Your task to perform on an android device: Go to wifi settings Image 0: 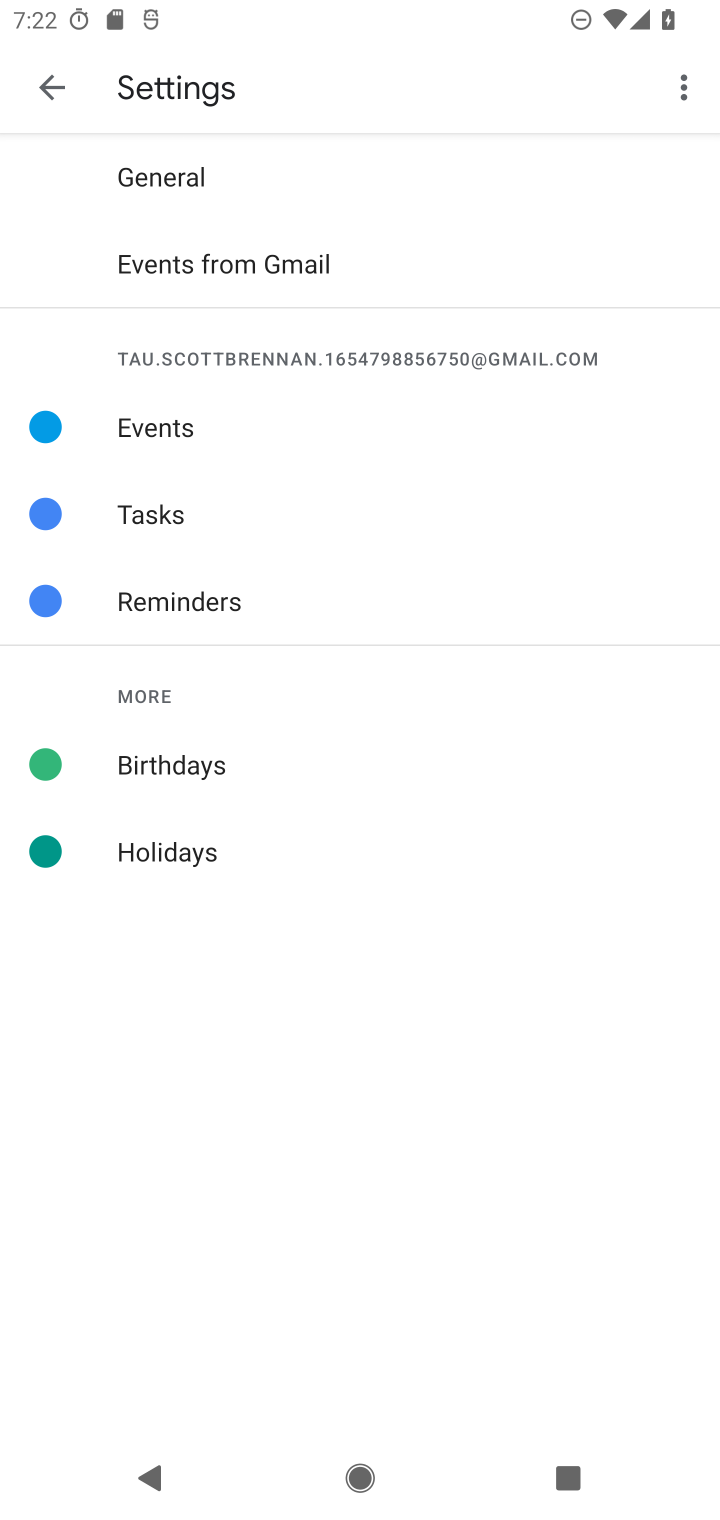
Step 0: press home button
Your task to perform on an android device: Go to wifi settings Image 1: 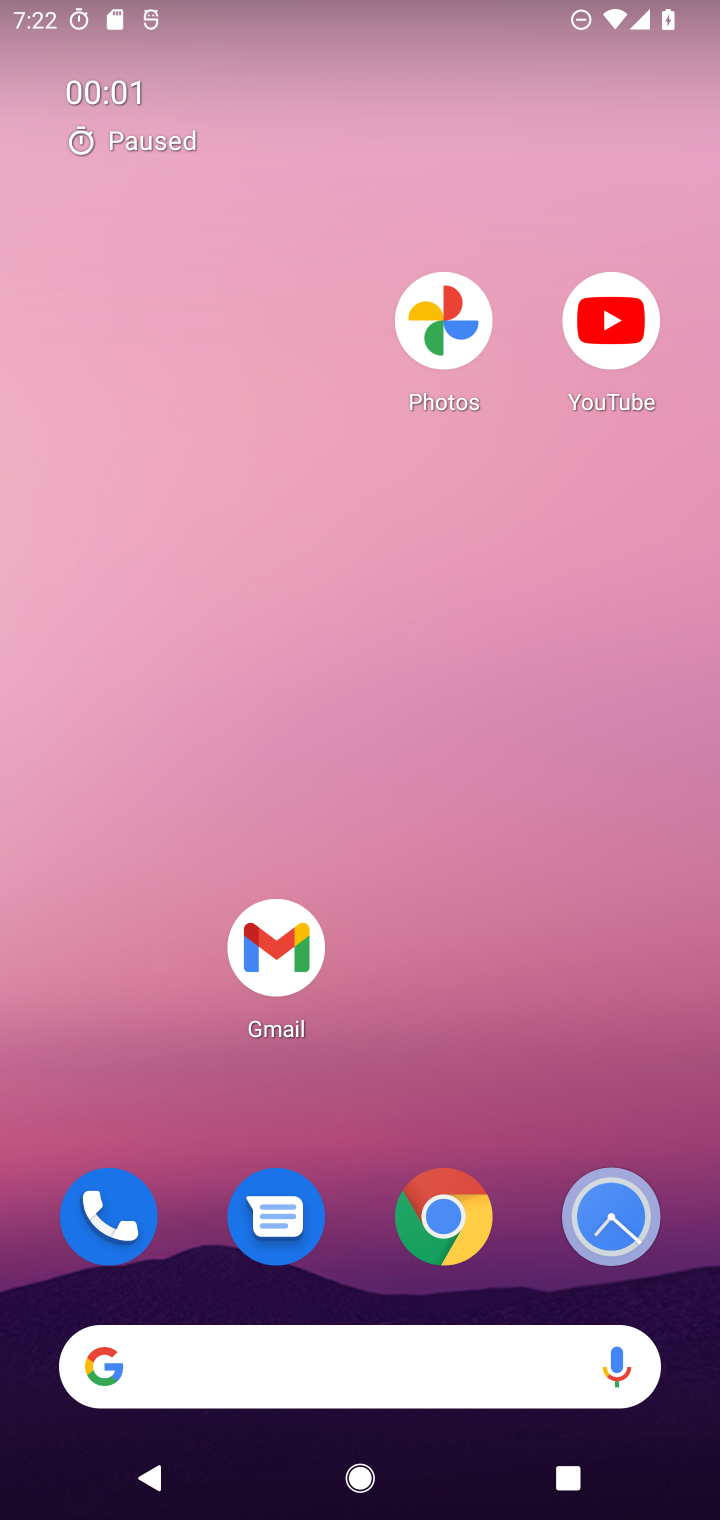
Step 1: drag from (463, 210) to (478, 57)
Your task to perform on an android device: Go to wifi settings Image 2: 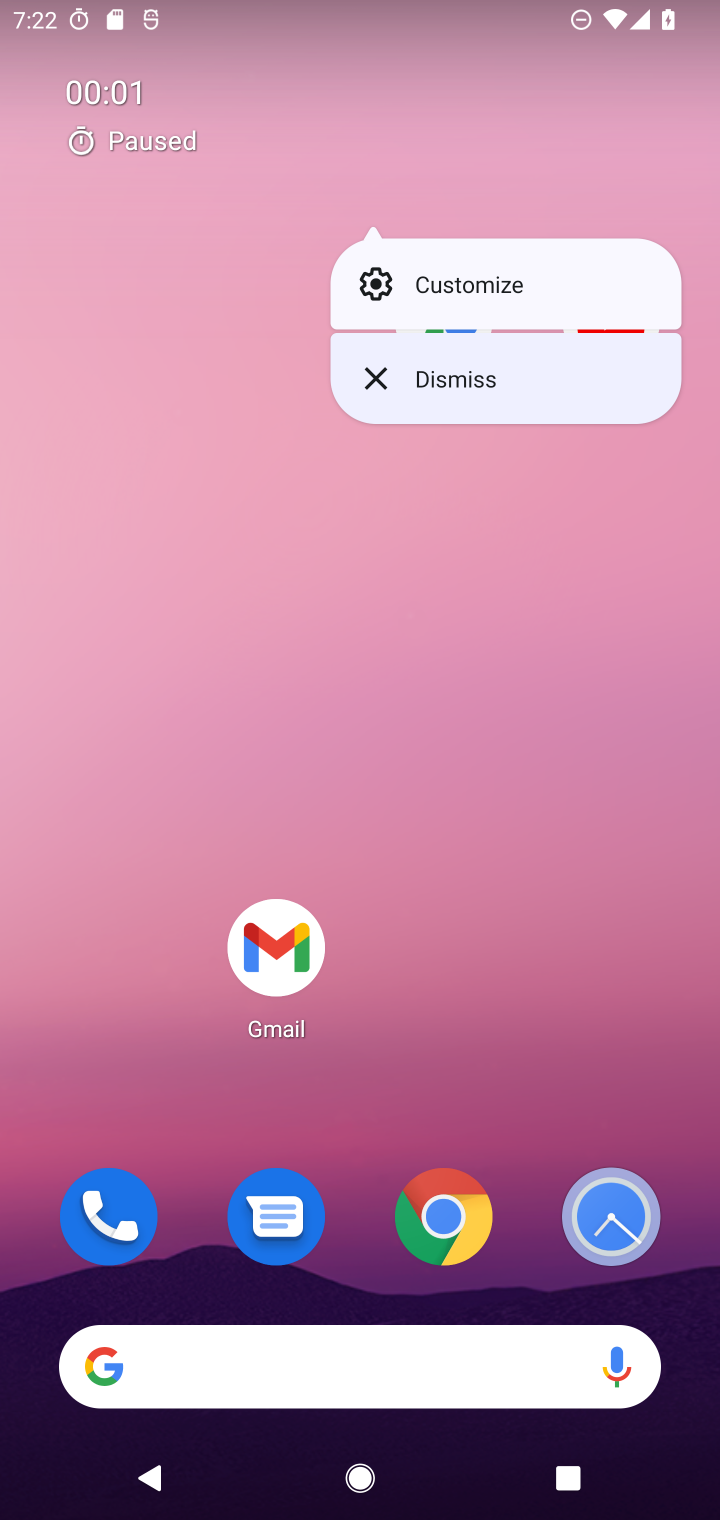
Step 2: click (488, 892)
Your task to perform on an android device: Go to wifi settings Image 3: 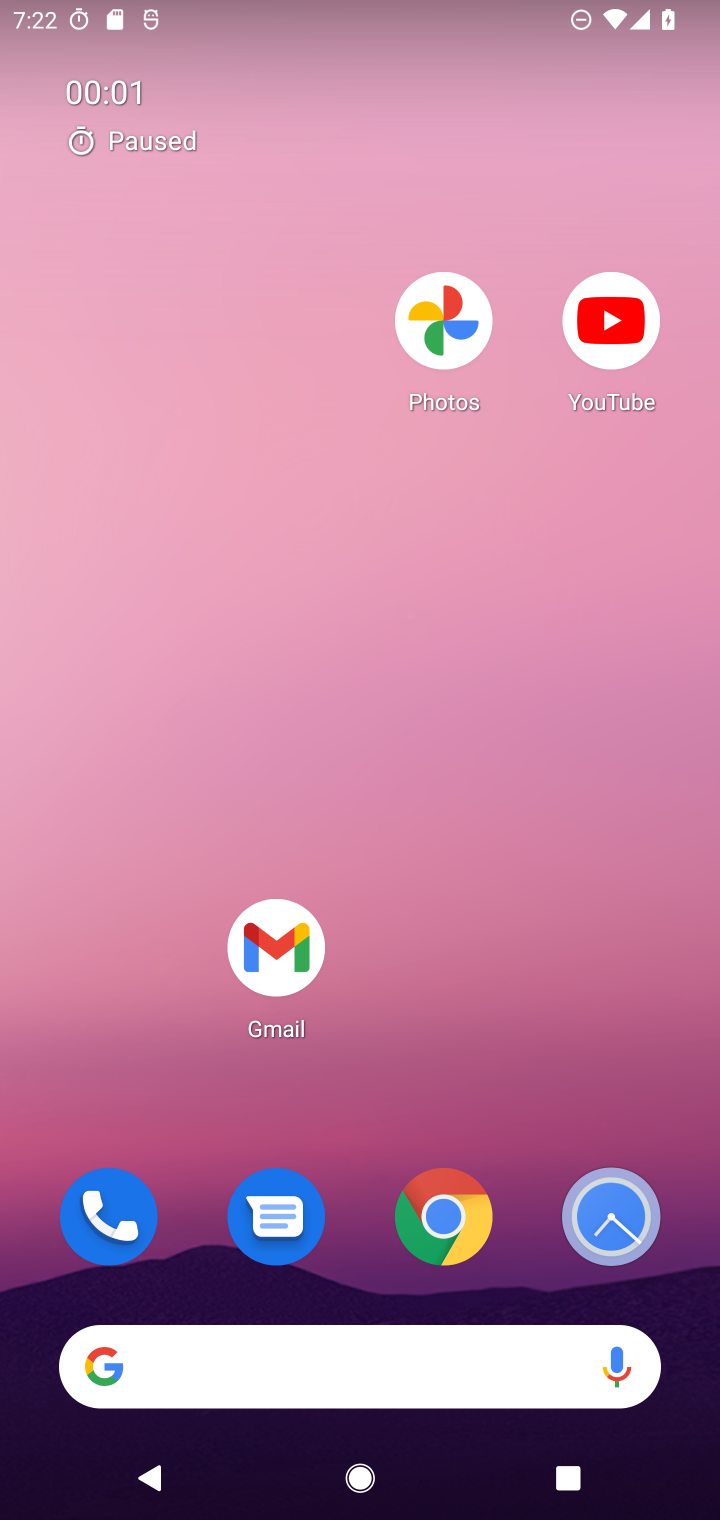
Step 3: drag from (375, 1254) to (474, 156)
Your task to perform on an android device: Go to wifi settings Image 4: 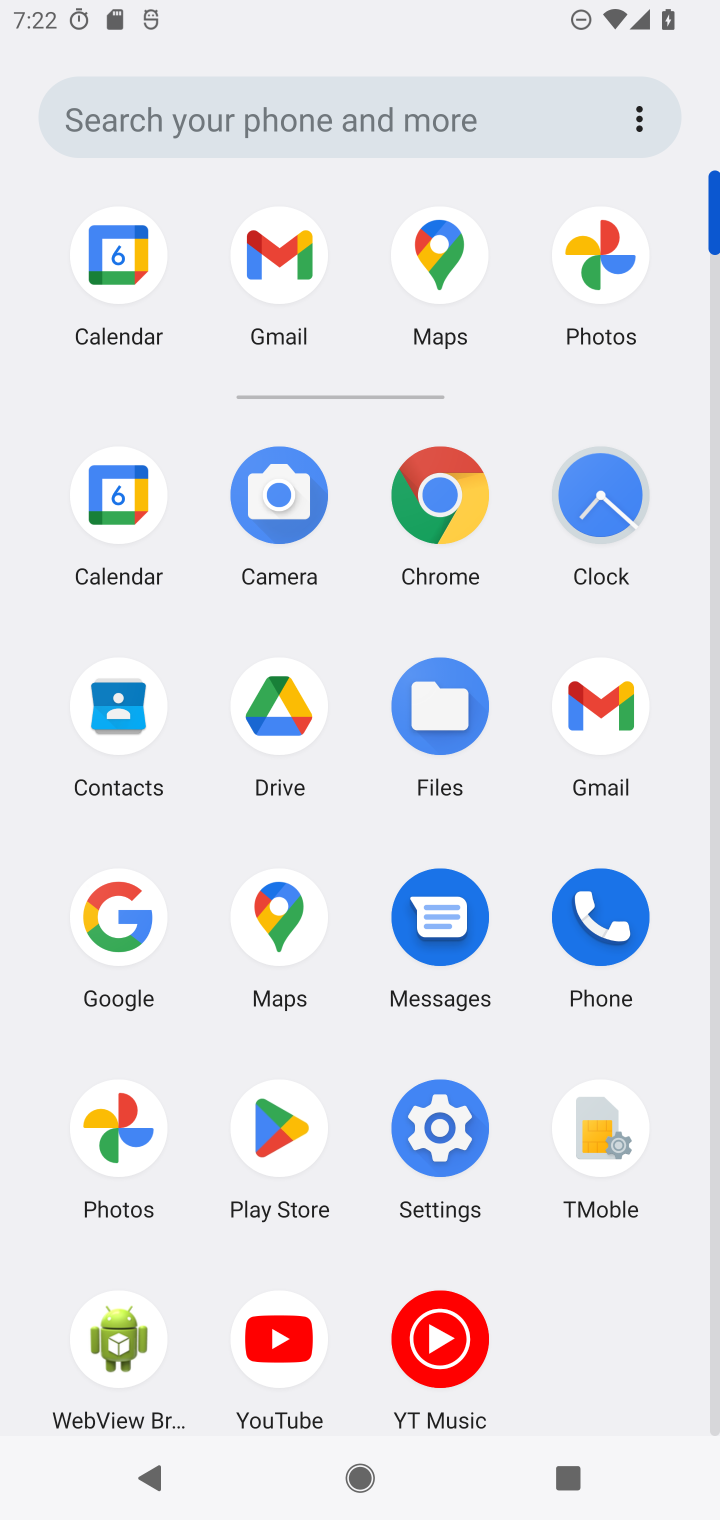
Step 4: click (434, 1123)
Your task to perform on an android device: Go to wifi settings Image 5: 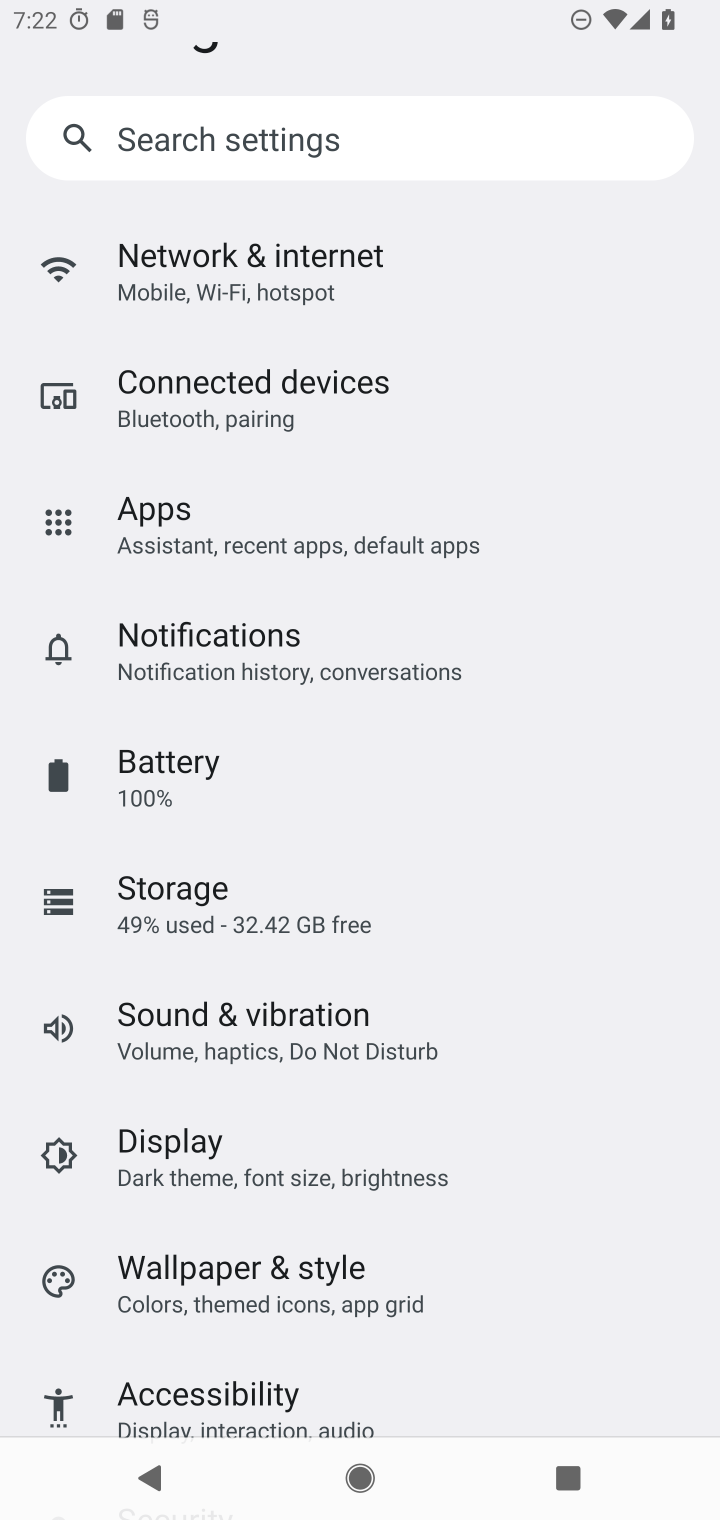
Step 5: click (279, 284)
Your task to perform on an android device: Go to wifi settings Image 6: 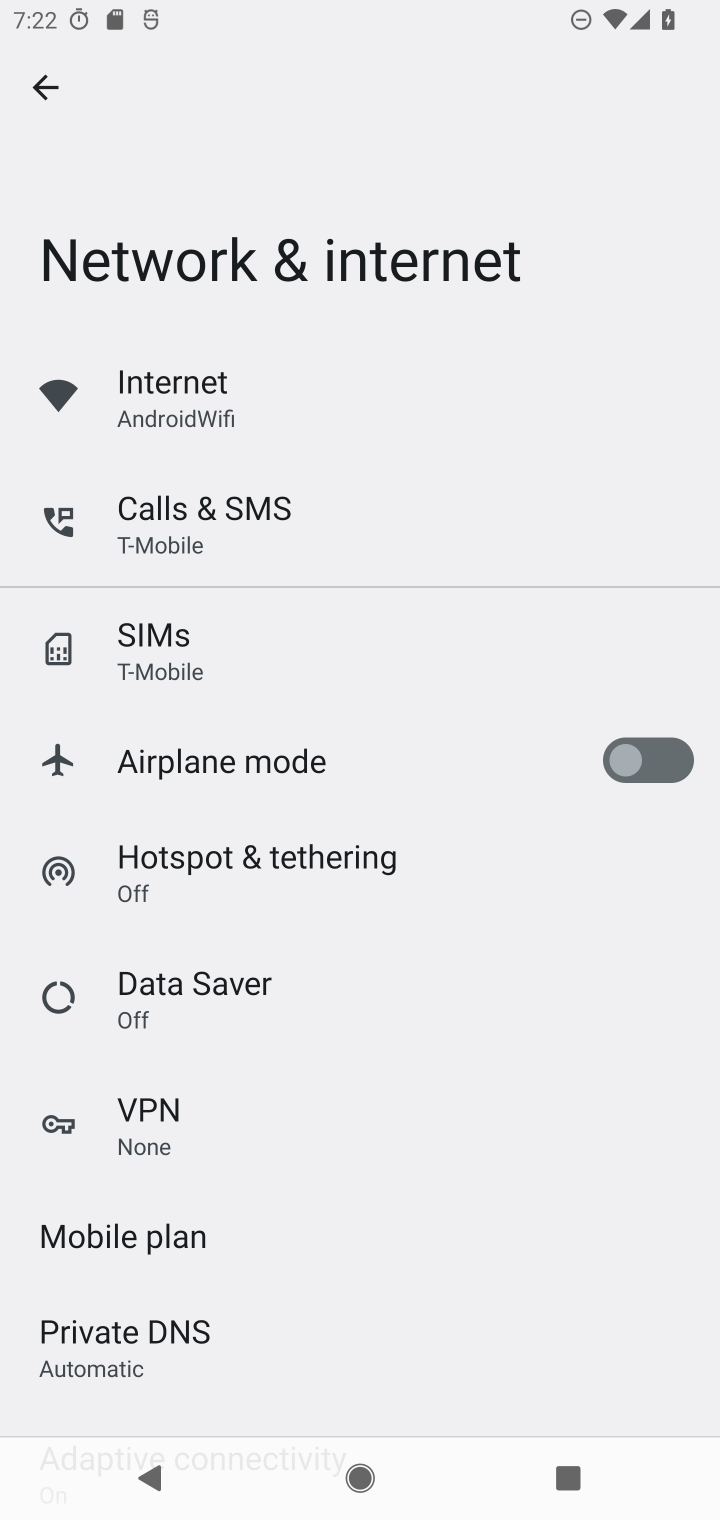
Step 6: click (240, 398)
Your task to perform on an android device: Go to wifi settings Image 7: 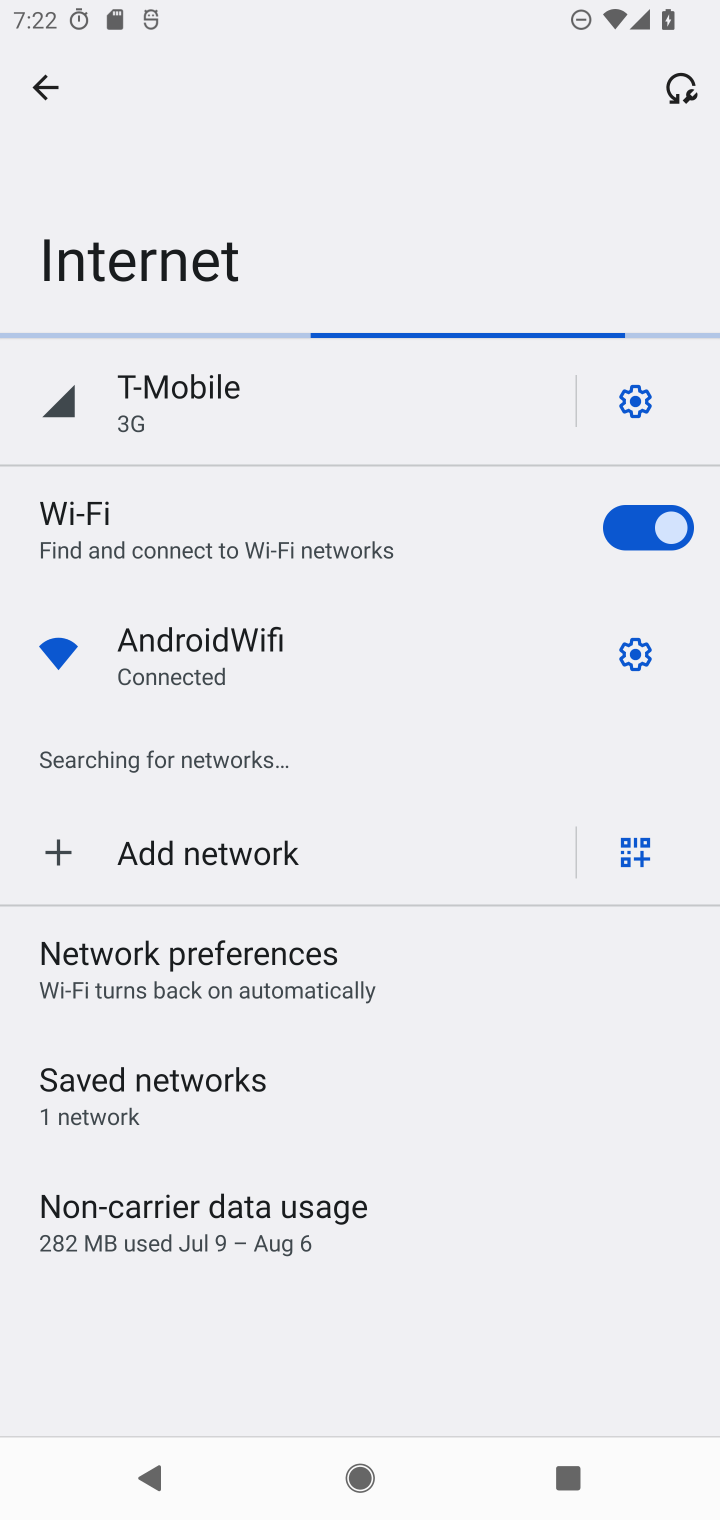
Step 7: click (646, 658)
Your task to perform on an android device: Go to wifi settings Image 8: 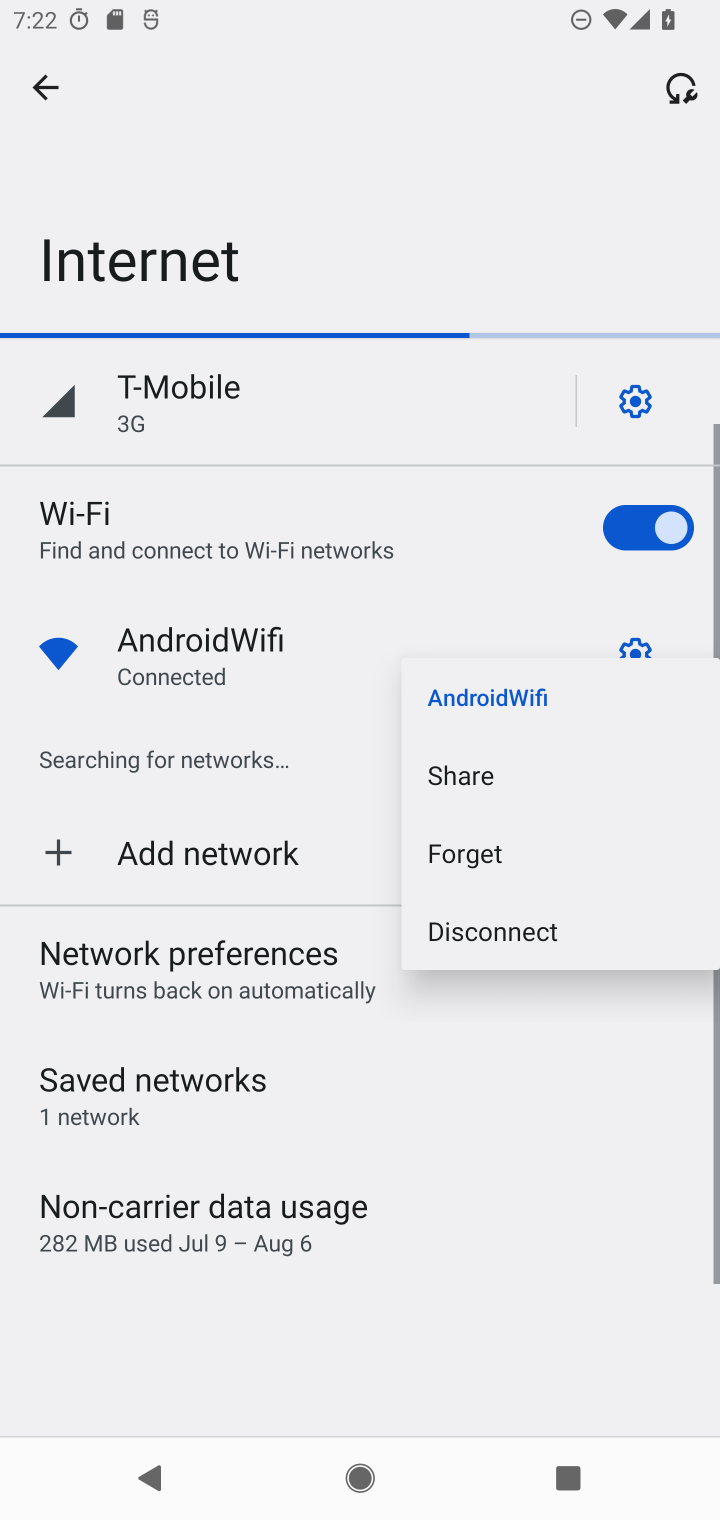
Step 8: click (646, 658)
Your task to perform on an android device: Go to wifi settings Image 9: 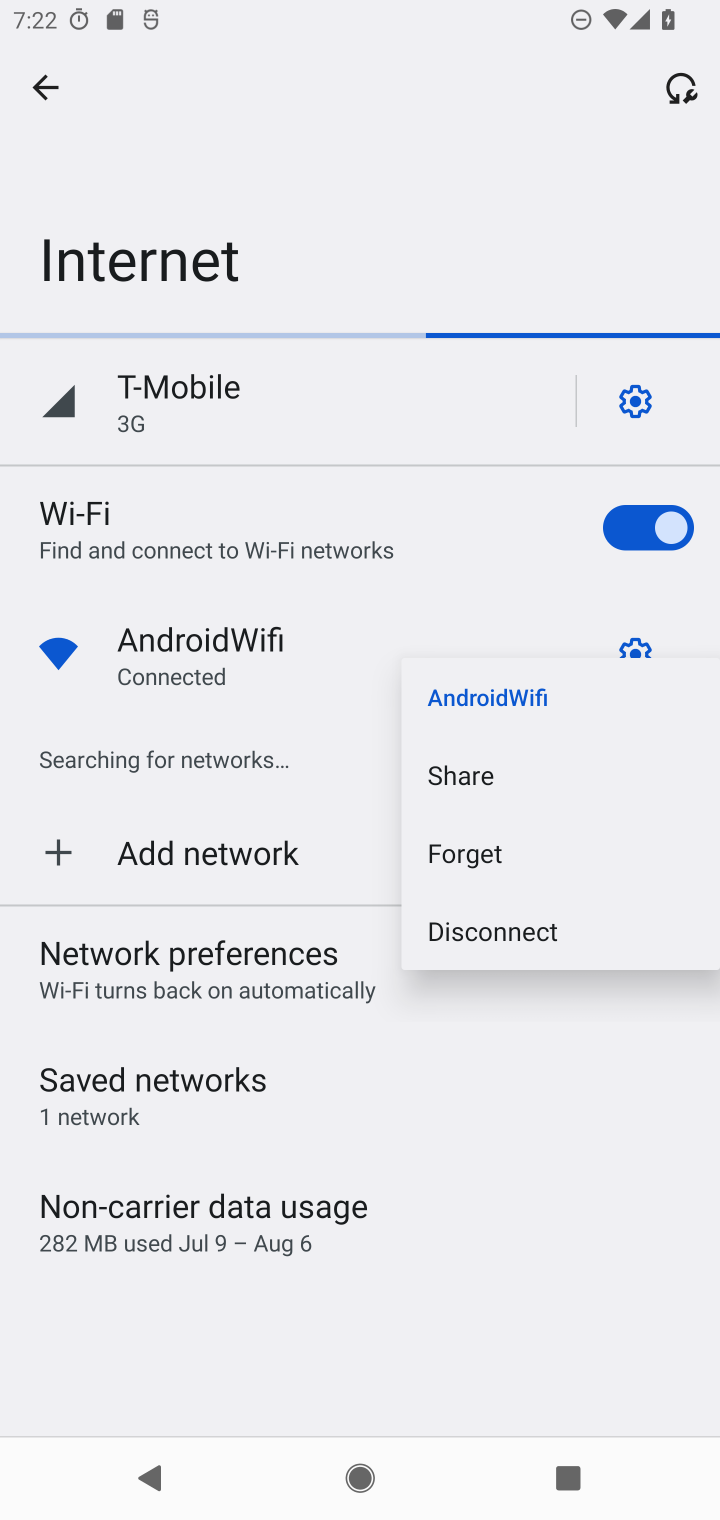
Step 9: click (645, 636)
Your task to perform on an android device: Go to wifi settings Image 10: 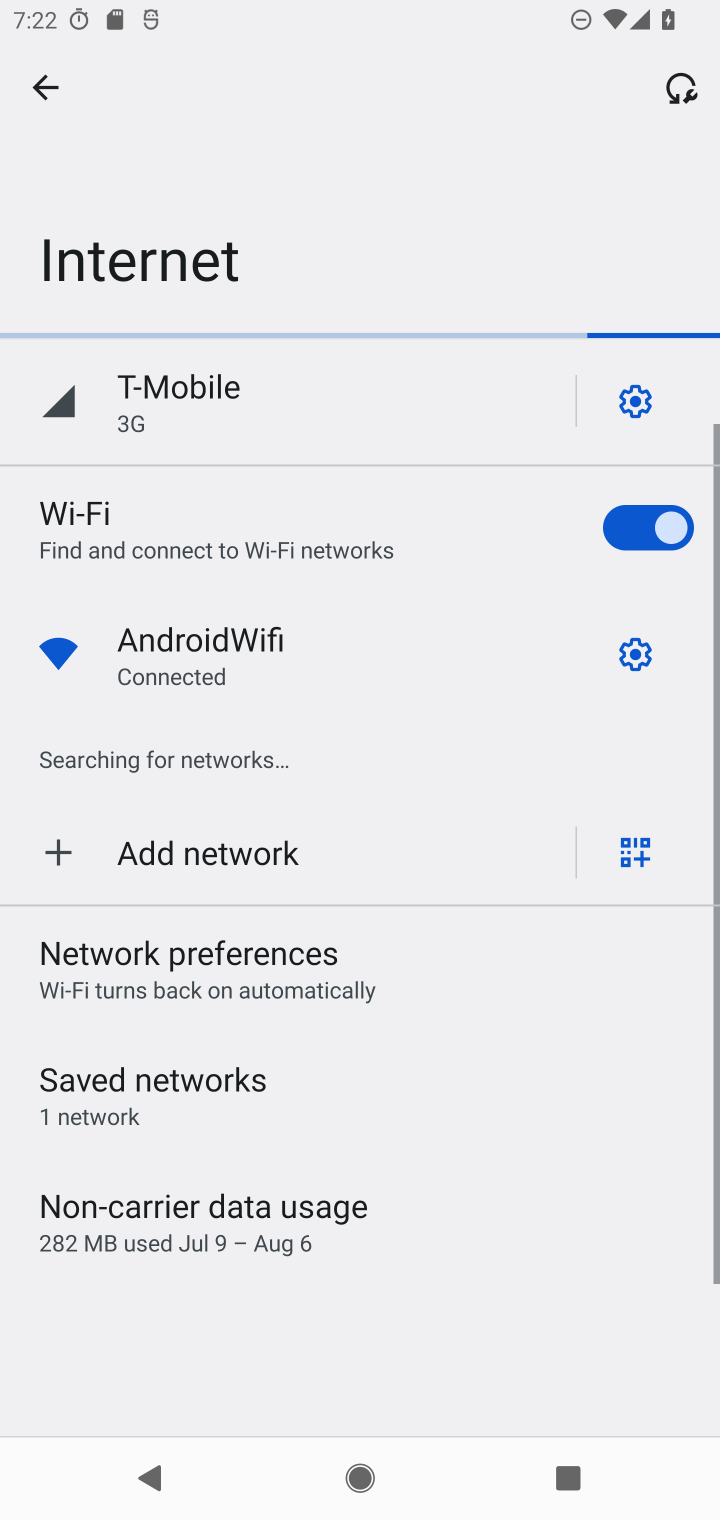
Step 10: click (619, 657)
Your task to perform on an android device: Go to wifi settings Image 11: 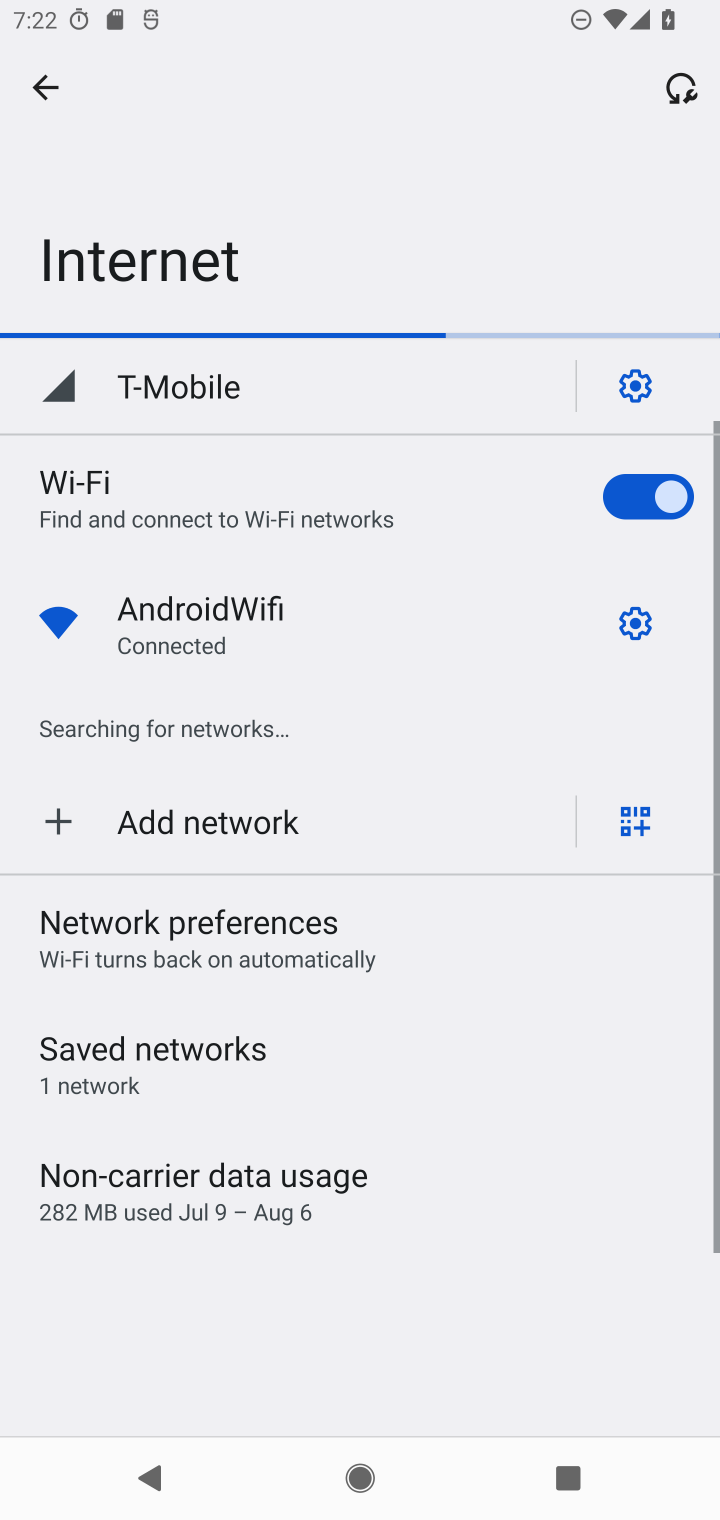
Step 11: click (632, 657)
Your task to perform on an android device: Go to wifi settings Image 12: 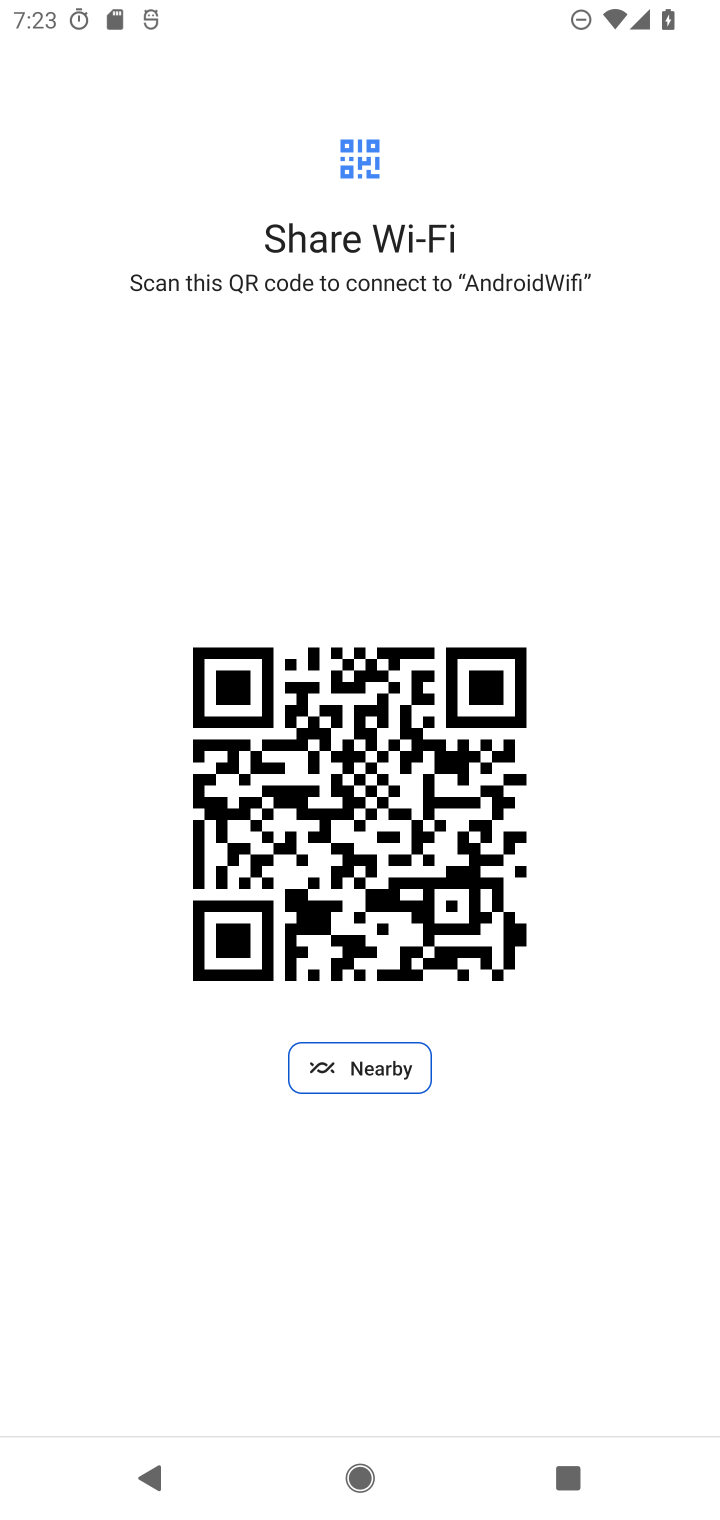
Step 12: task complete